Your task to perform on an android device: Do I have any events tomorrow? Image 0: 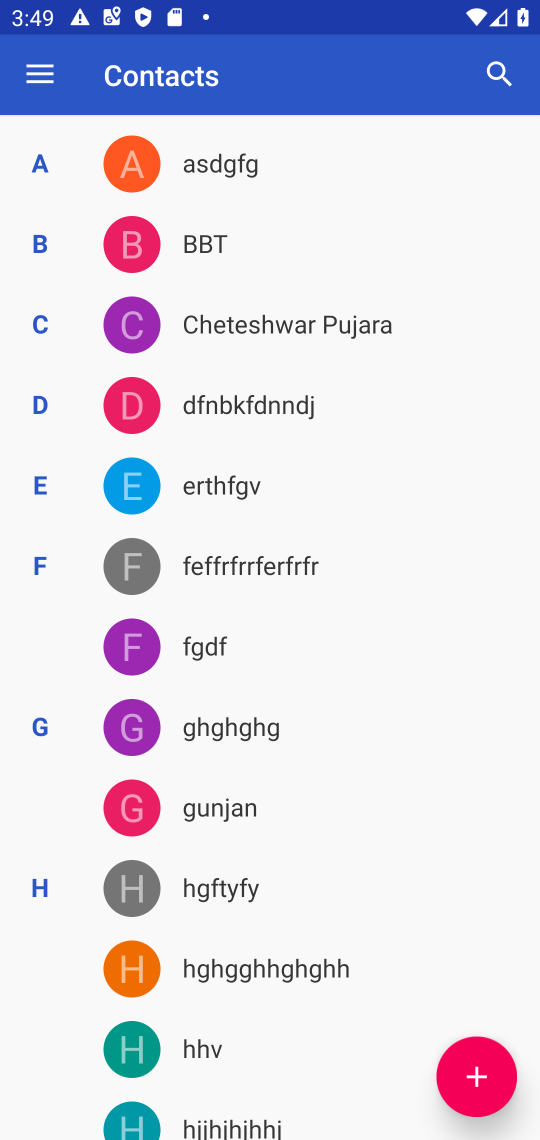
Step 0: press home button
Your task to perform on an android device: Do I have any events tomorrow? Image 1: 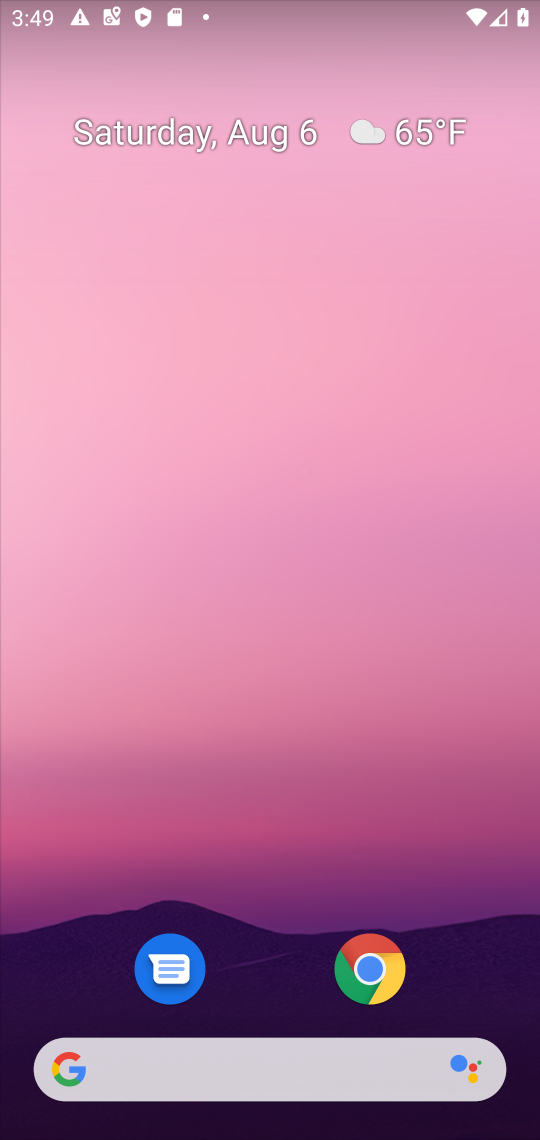
Step 1: drag from (272, 971) to (234, 201)
Your task to perform on an android device: Do I have any events tomorrow? Image 2: 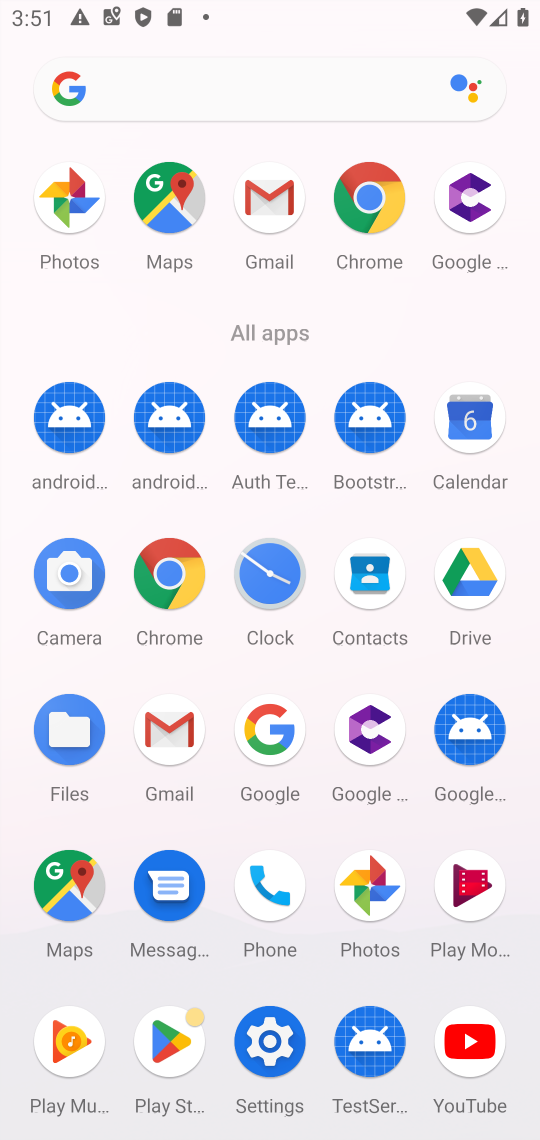
Step 2: click (490, 403)
Your task to perform on an android device: Do I have any events tomorrow? Image 3: 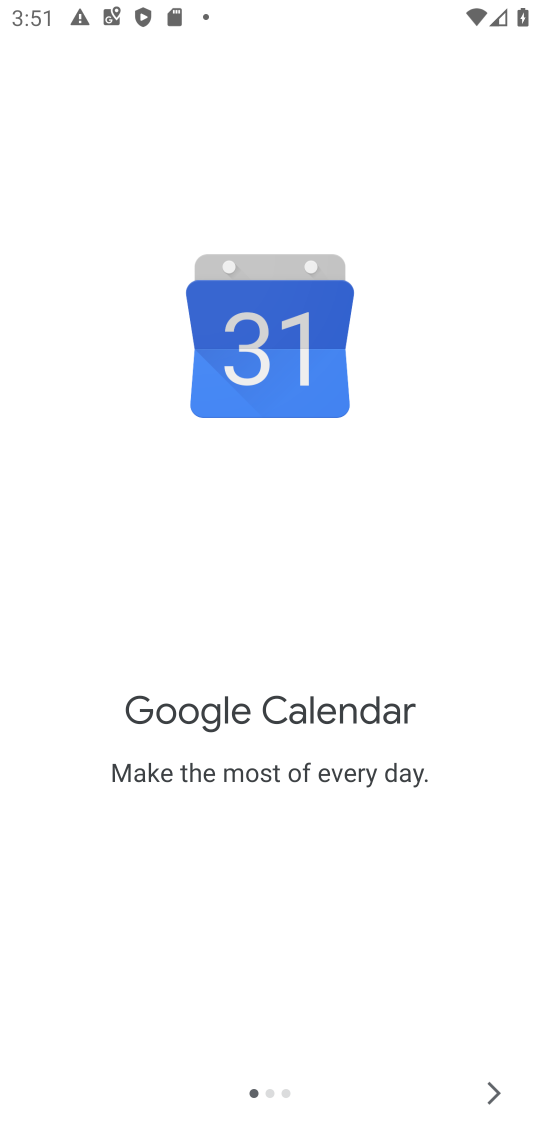
Step 3: click (488, 1086)
Your task to perform on an android device: Do I have any events tomorrow? Image 4: 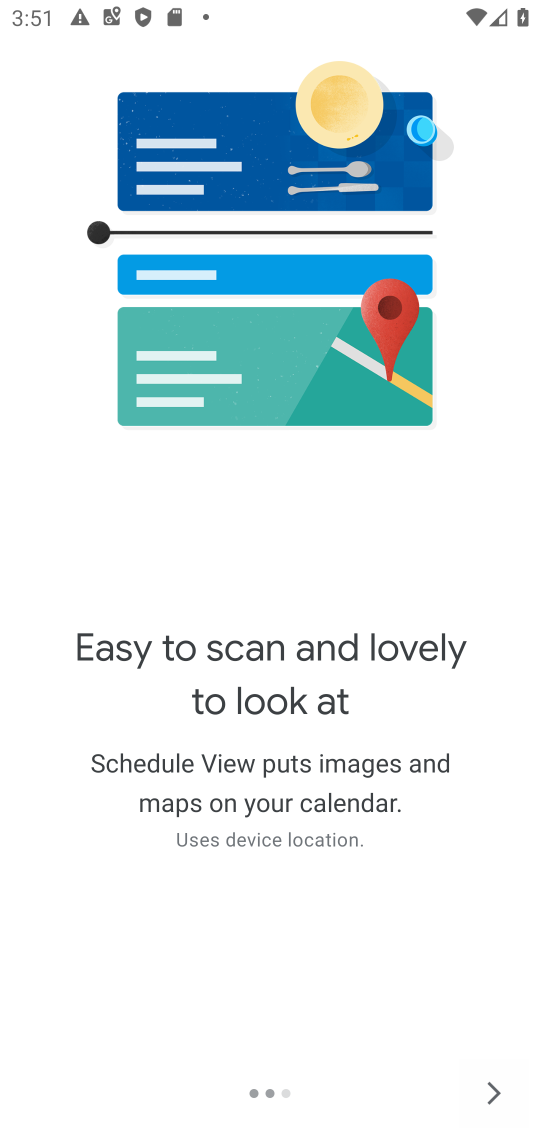
Step 4: click (488, 1086)
Your task to perform on an android device: Do I have any events tomorrow? Image 5: 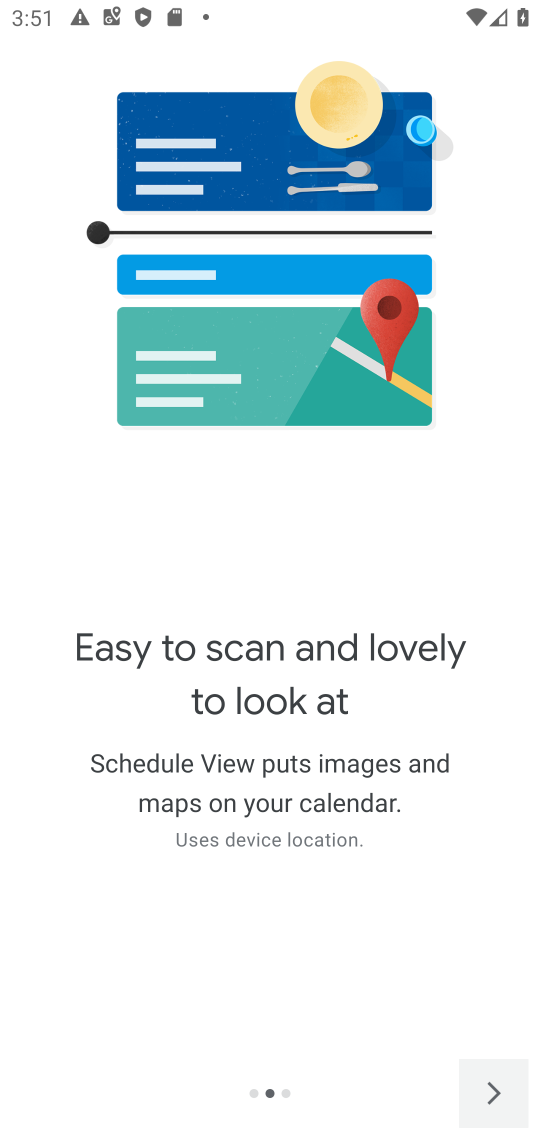
Step 5: click (488, 1086)
Your task to perform on an android device: Do I have any events tomorrow? Image 6: 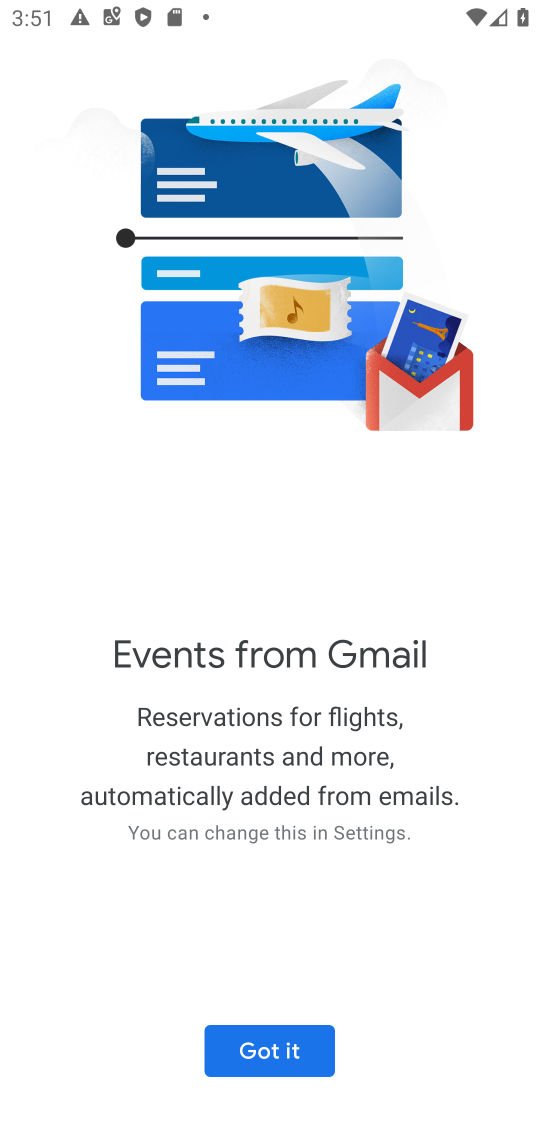
Step 6: click (262, 1054)
Your task to perform on an android device: Do I have any events tomorrow? Image 7: 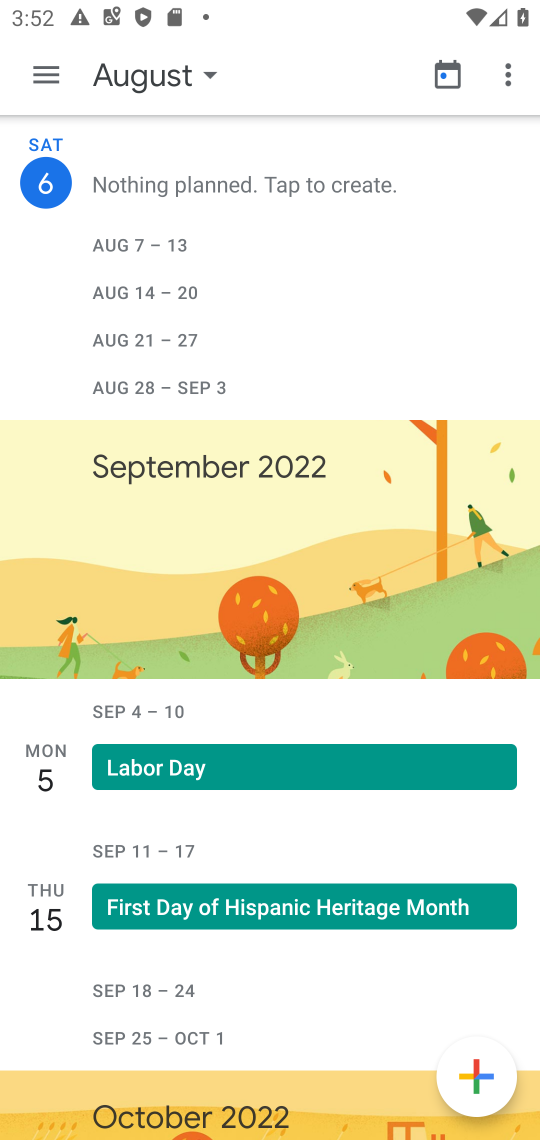
Step 7: click (46, 66)
Your task to perform on an android device: Do I have any events tomorrow? Image 8: 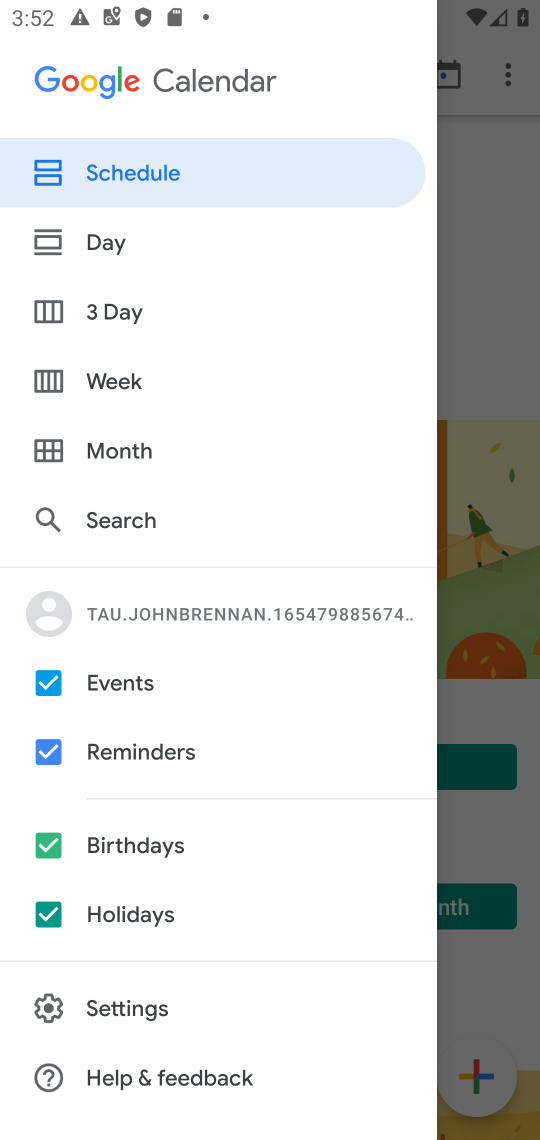
Step 8: click (159, 237)
Your task to perform on an android device: Do I have any events tomorrow? Image 9: 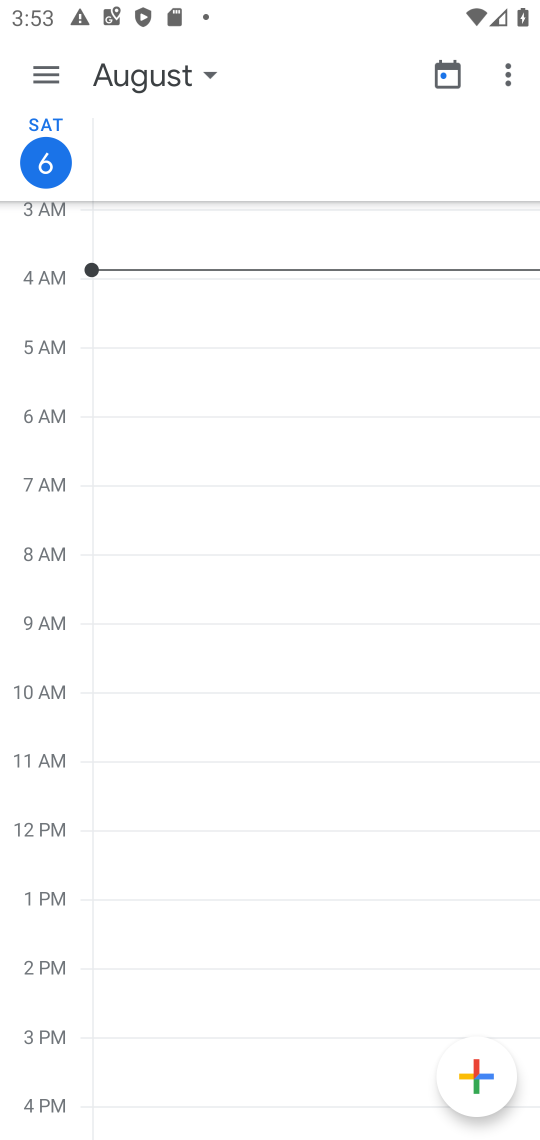
Step 9: task complete